Your task to perform on an android device: delete browsing data in the chrome app Image 0: 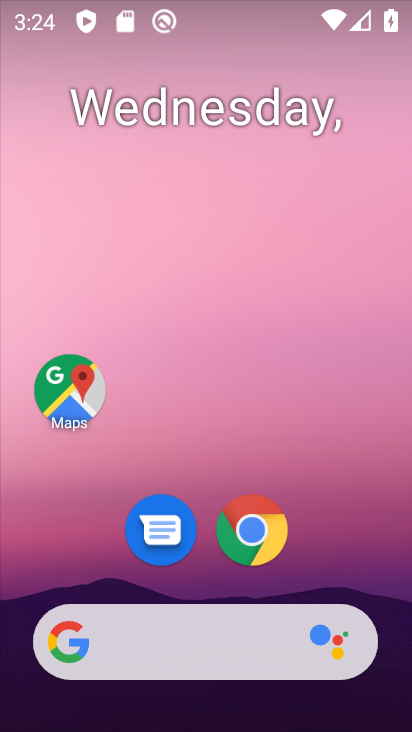
Step 0: click (246, 546)
Your task to perform on an android device: delete browsing data in the chrome app Image 1: 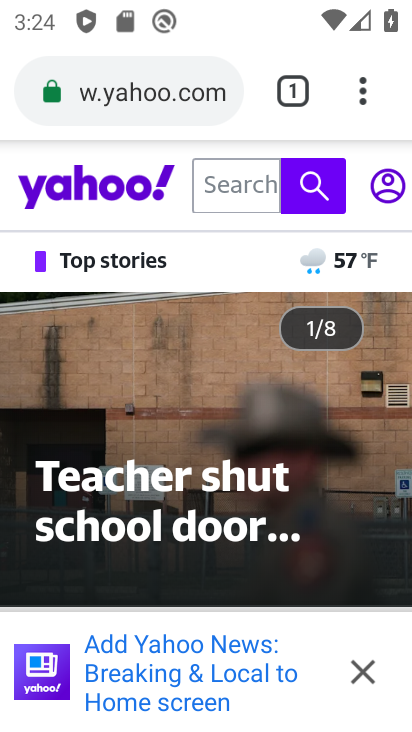
Step 1: drag from (361, 85) to (93, 434)
Your task to perform on an android device: delete browsing data in the chrome app Image 2: 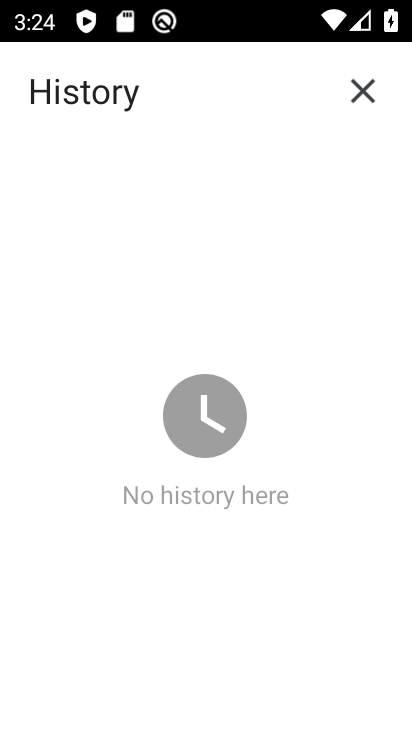
Step 2: click (295, 335)
Your task to perform on an android device: delete browsing data in the chrome app Image 3: 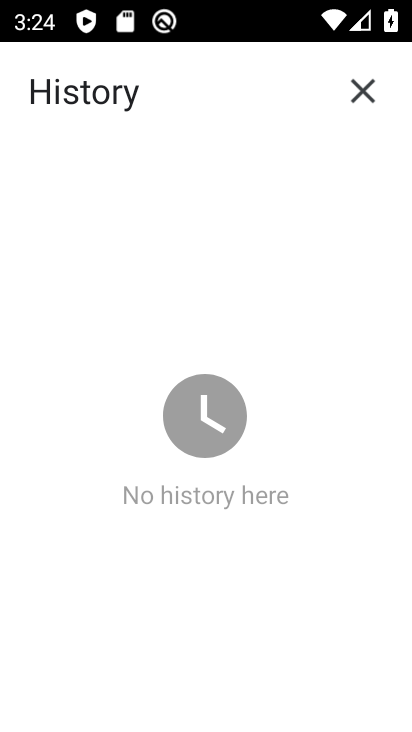
Step 3: task complete